Your task to perform on an android device: refresh tabs in the chrome app Image 0: 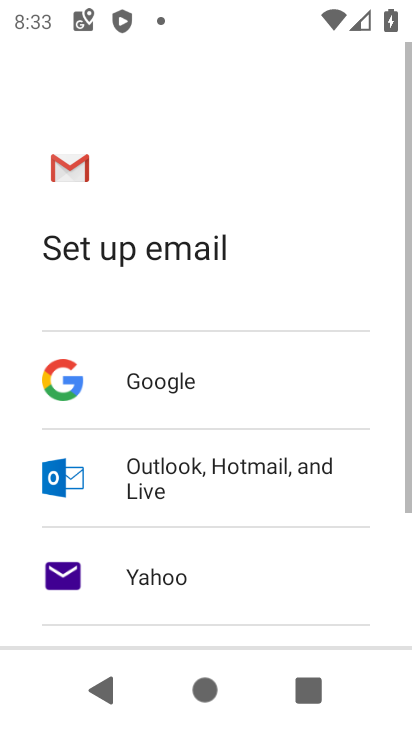
Step 0: press home button
Your task to perform on an android device: refresh tabs in the chrome app Image 1: 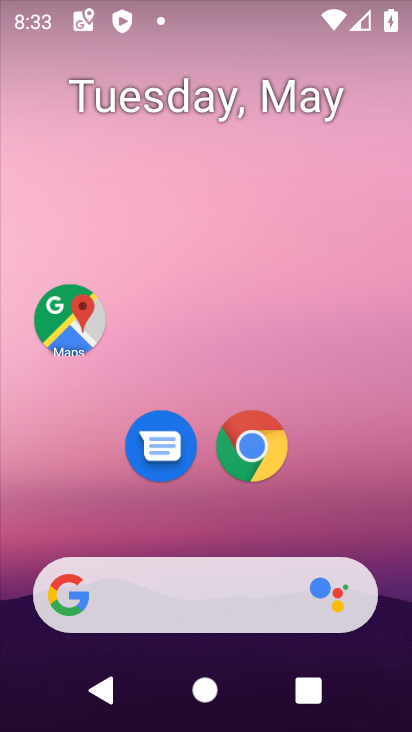
Step 1: click (251, 442)
Your task to perform on an android device: refresh tabs in the chrome app Image 2: 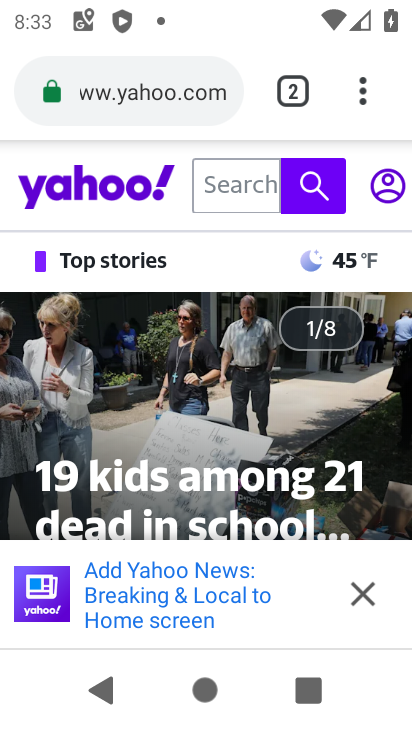
Step 2: click (367, 81)
Your task to perform on an android device: refresh tabs in the chrome app Image 3: 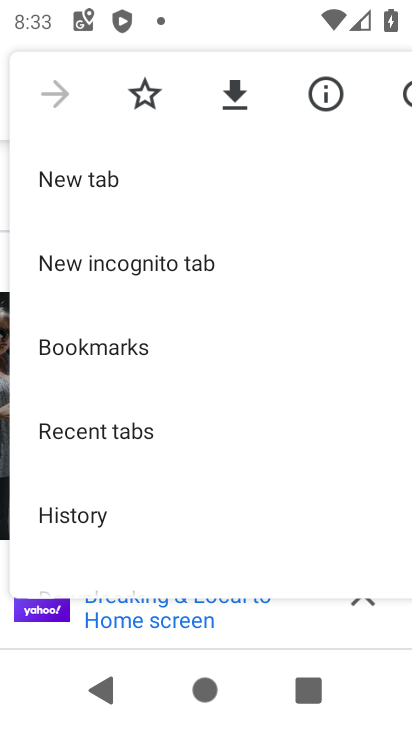
Step 3: click (404, 94)
Your task to perform on an android device: refresh tabs in the chrome app Image 4: 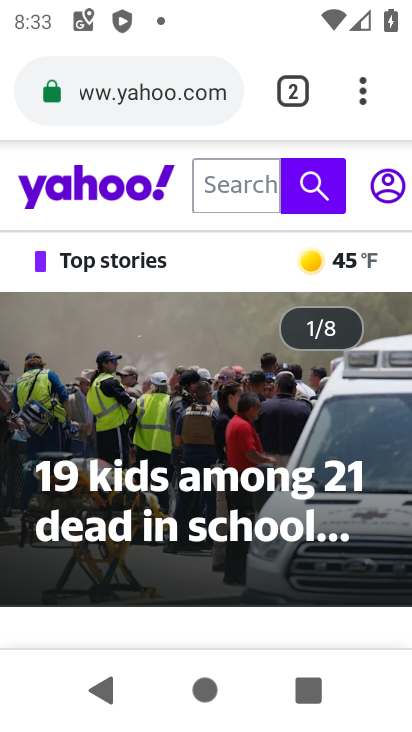
Step 4: task complete